Your task to perform on an android device: check data usage Image 0: 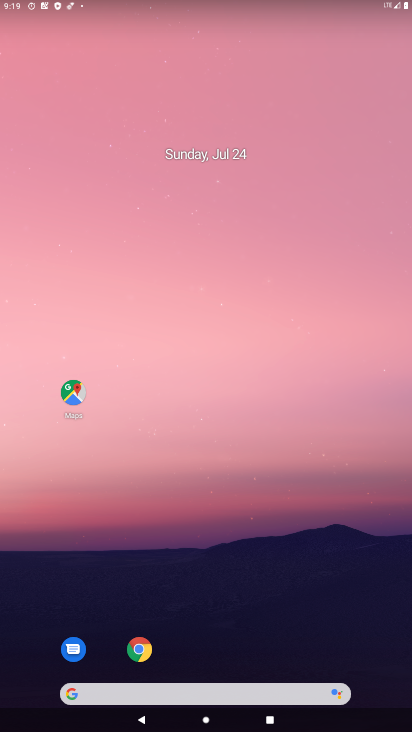
Step 0: drag from (56, 673) to (194, 53)
Your task to perform on an android device: check data usage Image 1: 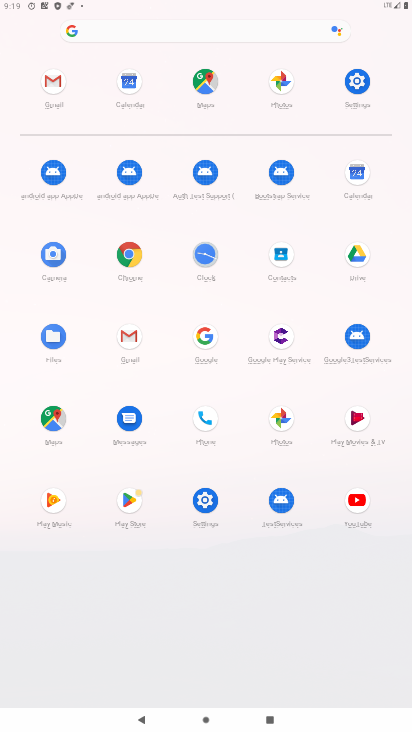
Step 1: click (363, 86)
Your task to perform on an android device: check data usage Image 2: 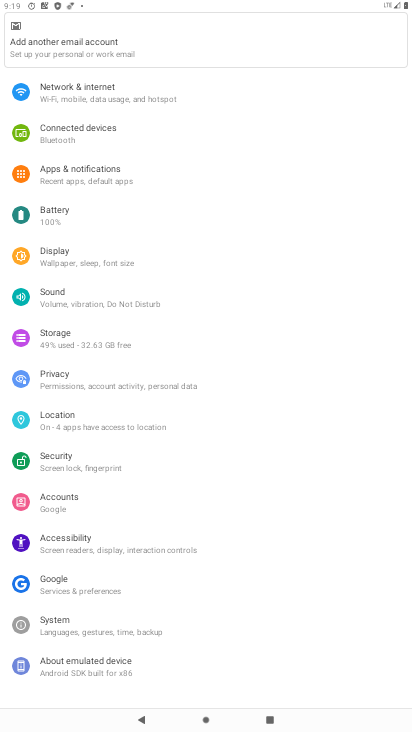
Step 2: click (74, 74)
Your task to perform on an android device: check data usage Image 3: 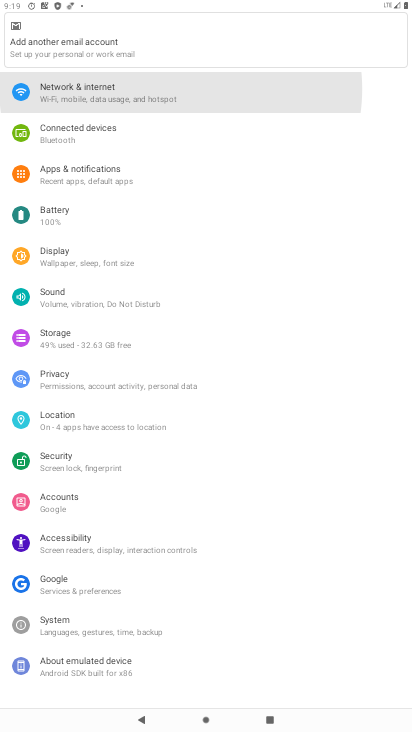
Step 3: click (71, 82)
Your task to perform on an android device: check data usage Image 4: 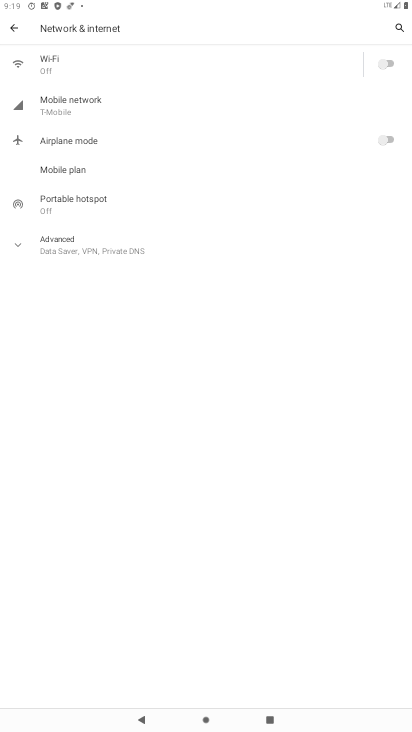
Step 4: click (109, 106)
Your task to perform on an android device: check data usage Image 5: 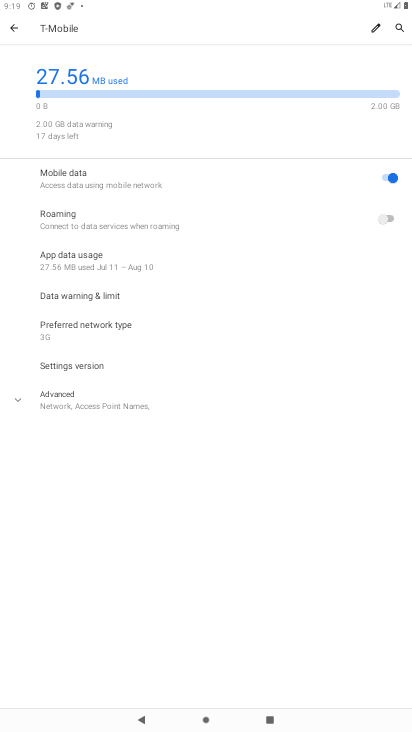
Step 5: task complete